Your task to perform on an android device: What's the weather going to be tomorrow? Image 0: 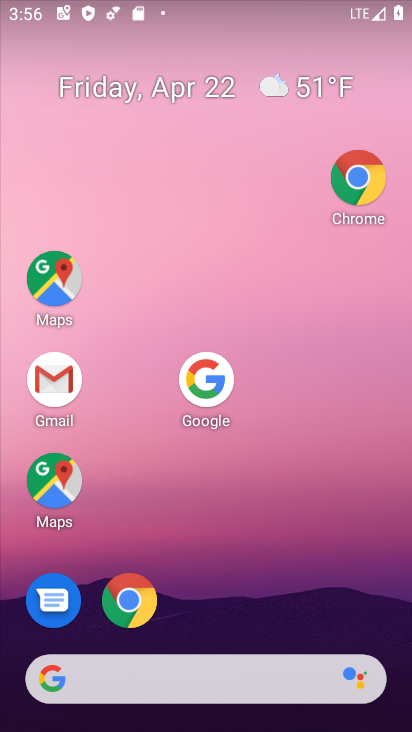
Step 0: drag from (349, 669) to (106, 115)
Your task to perform on an android device: What's the weather going to be tomorrow? Image 1: 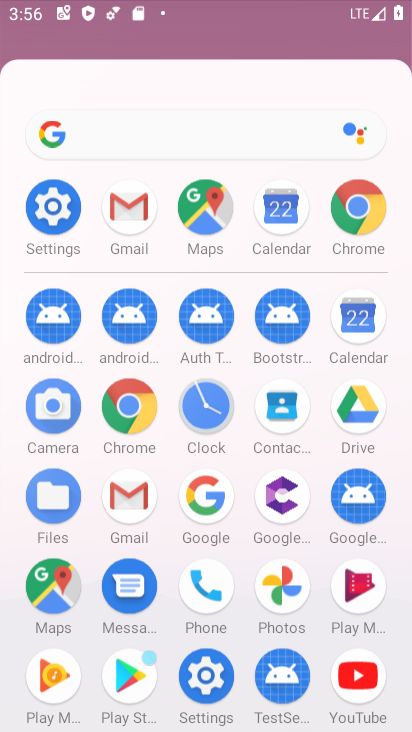
Step 1: drag from (259, 535) to (108, 118)
Your task to perform on an android device: What's the weather going to be tomorrow? Image 2: 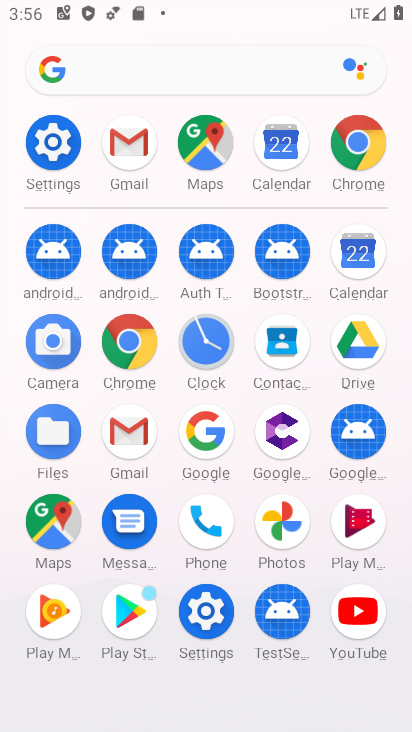
Step 2: press home button
Your task to perform on an android device: What's the weather going to be tomorrow? Image 3: 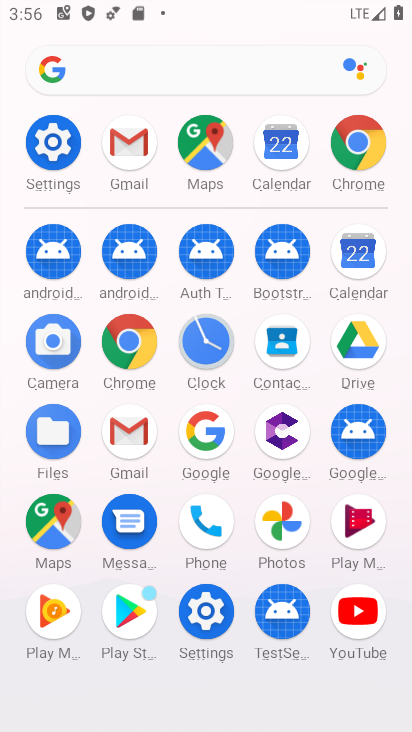
Step 3: press home button
Your task to perform on an android device: What's the weather going to be tomorrow? Image 4: 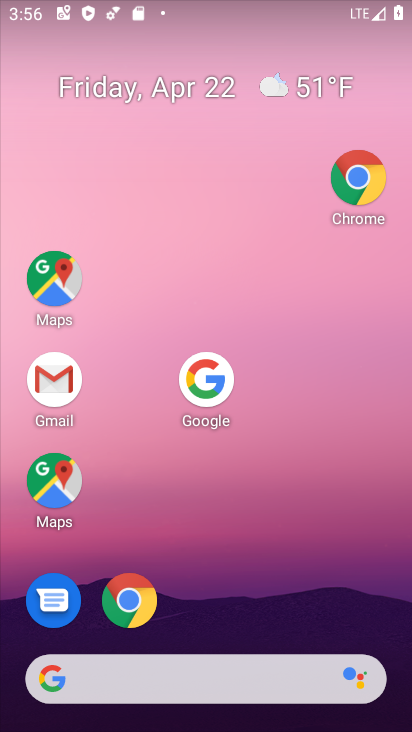
Step 4: press home button
Your task to perform on an android device: What's the weather going to be tomorrow? Image 5: 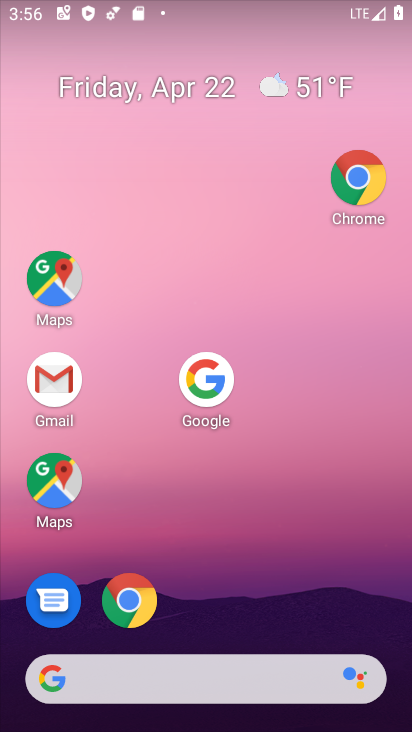
Step 5: drag from (13, 160) to (345, 148)
Your task to perform on an android device: What's the weather going to be tomorrow? Image 6: 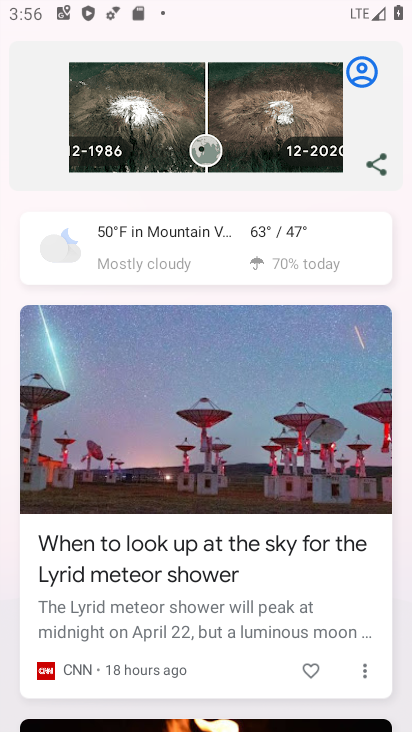
Step 6: drag from (221, 126) to (215, 524)
Your task to perform on an android device: What's the weather going to be tomorrow? Image 7: 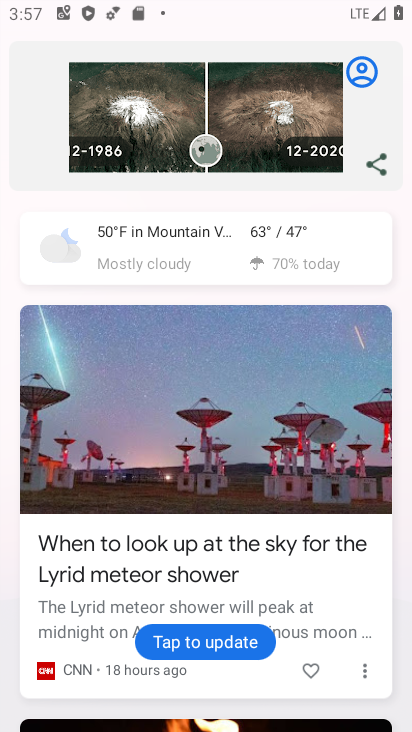
Step 7: click (185, 235)
Your task to perform on an android device: What's the weather going to be tomorrow? Image 8: 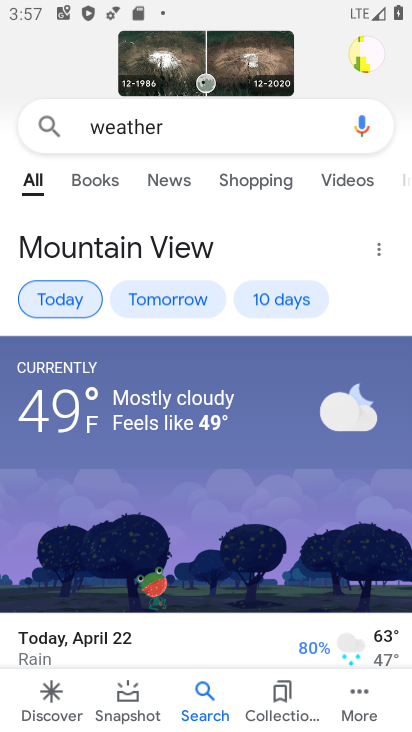
Step 8: click (170, 298)
Your task to perform on an android device: What's the weather going to be tomorrow? Image 9: 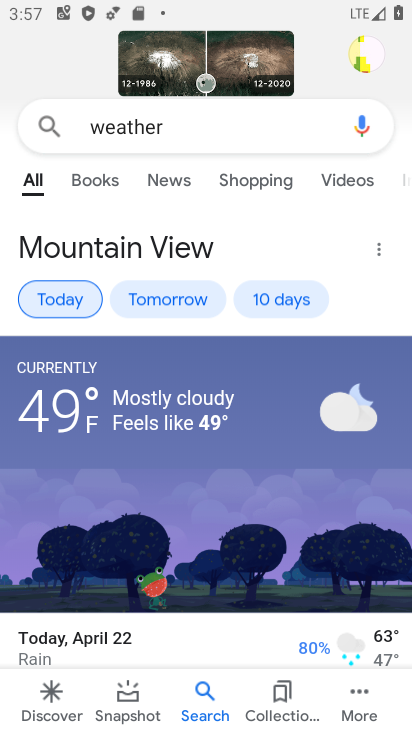
Step 9: click (170, 298)
Your task to perform on an android device: What's the weather going to be tomorrow? Image 10: 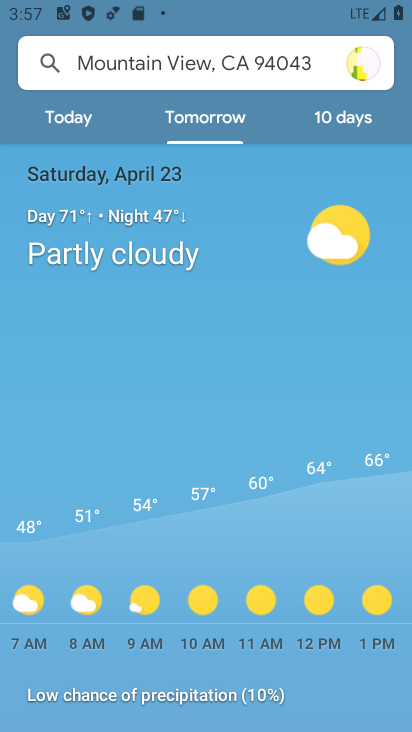
Step 10: click (238, 187)
Your task to perform on an android device: What's the weather going to be tomorrow? Image 11: 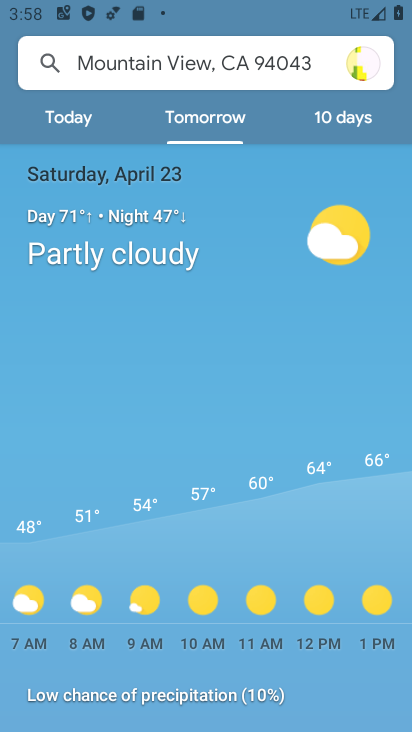
Step 11: task complete